Your task to perform on an android device: see tabs open on other devices in the chrome app Image 0: 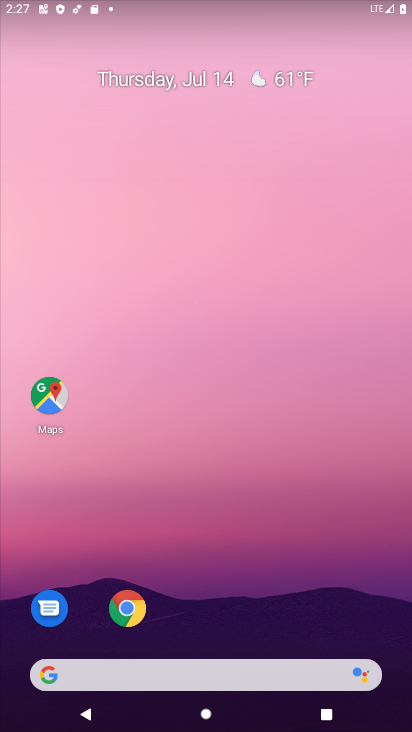
Step 0: drag from (197, 653) to (235, 377)
Your task to perform on an android device: see tabs open on other devices in the chrome app Image 1: 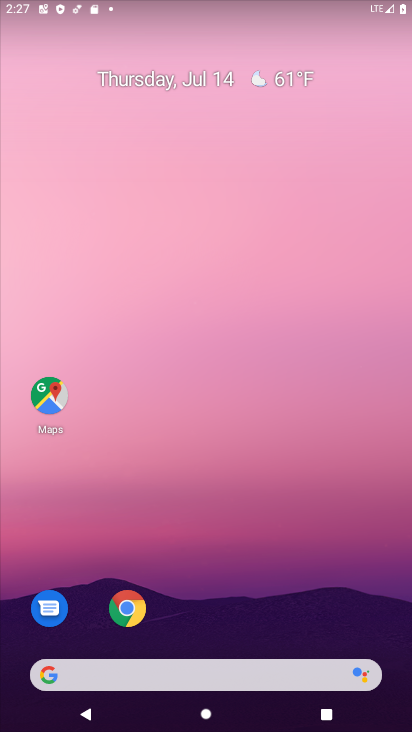
Step 1: drag from (250, 659) to (291, 190)
Your task to perform on an android device: see tabs open on other devices in the chrome app Image 2: 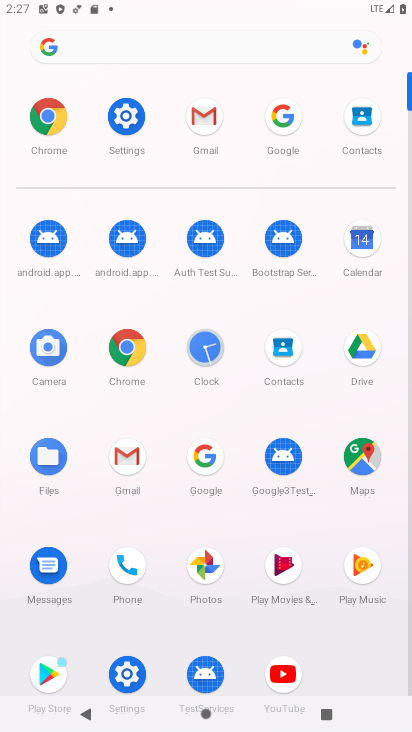
Step 2: click (124, 346)
Your task to perform on an android device: see tabs open on other devices in the chrome app Image 3: 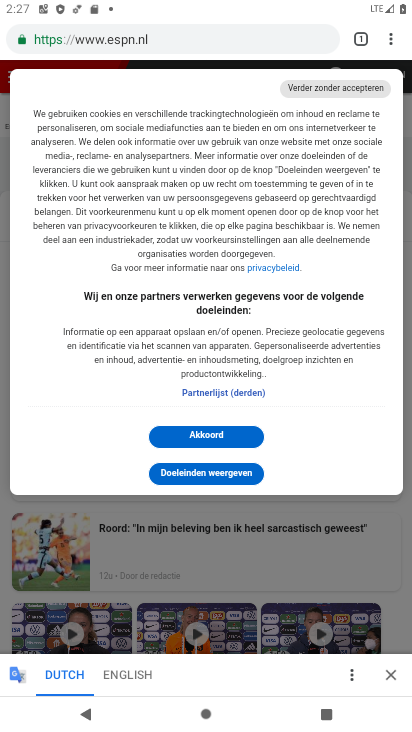
Step 3: click (355, 35)
Your task to perform on an android device: see tabs open on other devices in the chrome app Image 4: 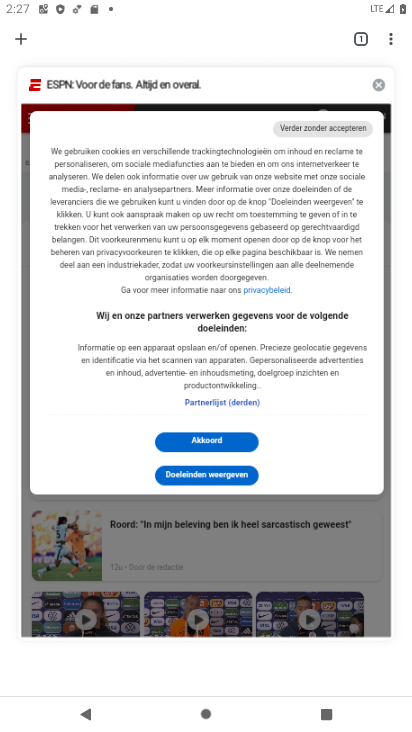
Step 4: task complete